Your task to perform on an android device: turn pop-ups on in chrome Image 0: 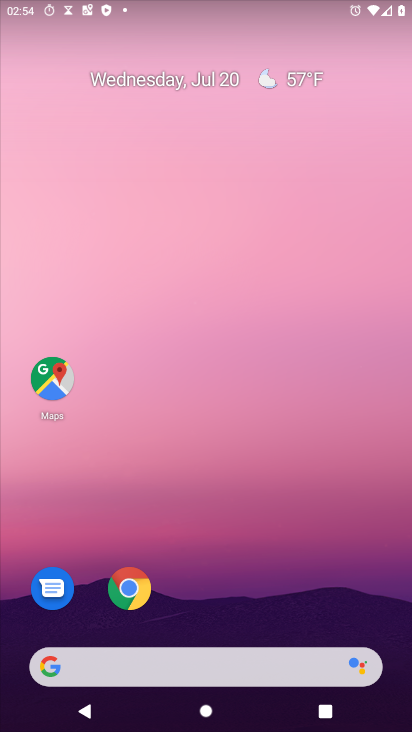
Step 0: drag from (349, 666) to (363, 1)
Your task to perform on an android device: turn pop-ups on in chrome Image 1: 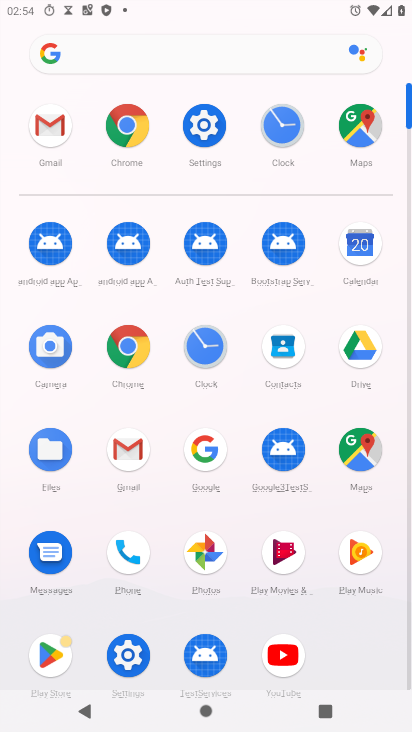
Step 1: click (147, 354)
Your task to perform on an android device: turn pop-ups on in chrome Image 2: 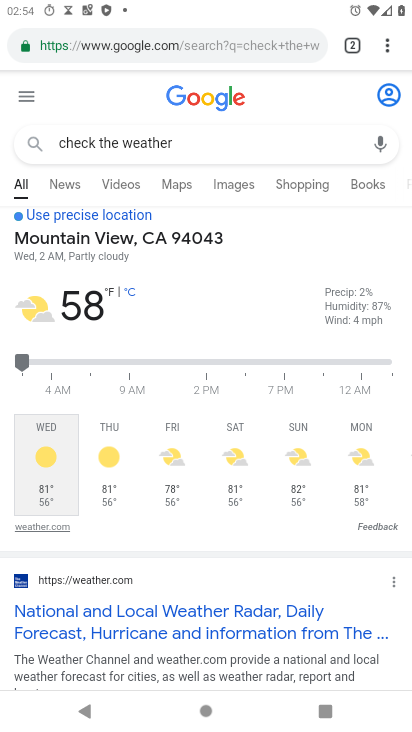
Step 2: click (390, 40)
Your task to perform on an android device: turn pop-ups on in chrome Image 3: 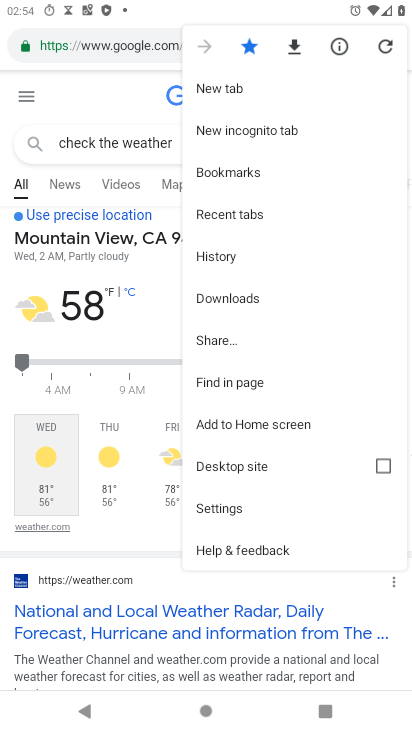
Step 3: click (241, 511)
Your task to perform on an android device: turn pop-ups on in chrome Image 4: 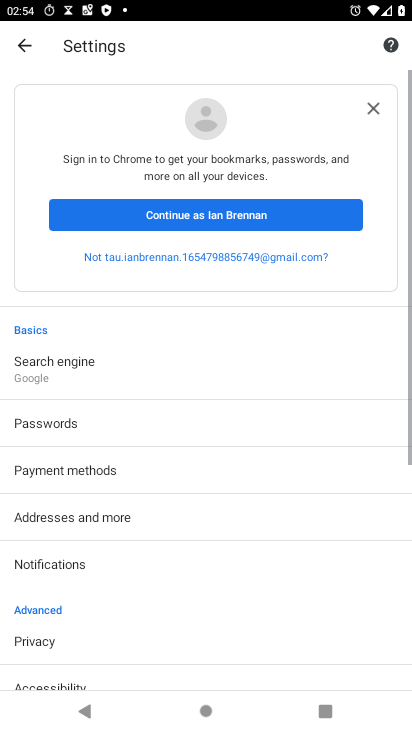
Step 4: drag from (161, 641) to (182, 149)
Your task to perform on an android device: turn pop-ups on in chrome Image 5: 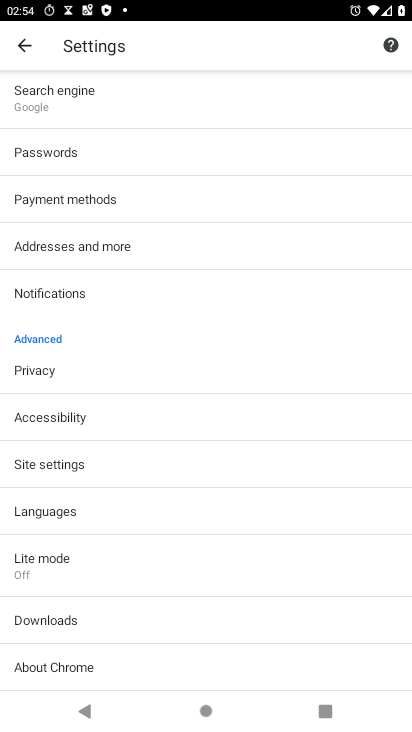
Step 5: click (86, 471)
Your task to perform on an android device: turn pop-ups on in chrome Image 6: 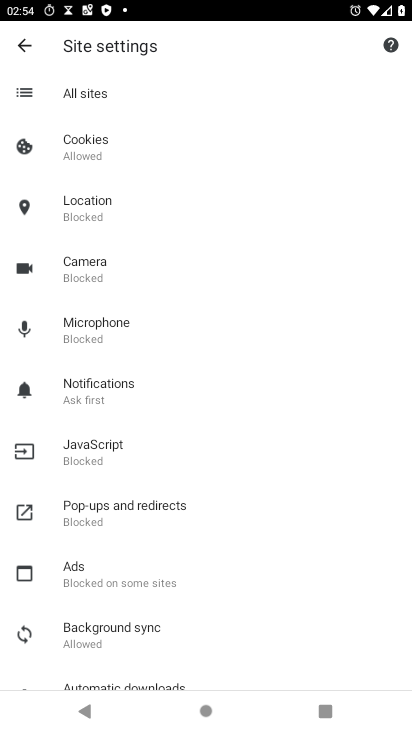
Step 6: click (140, 501)
Your task to perform on an android device: turn pop-ups on in chrome Image 7: 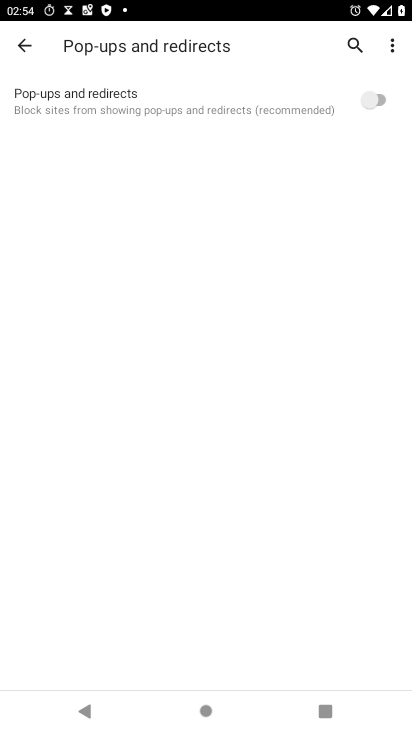
Step 7: click (373, 99)
Your task to perform on an android device: turn pop-ups on in chrome Image 8: 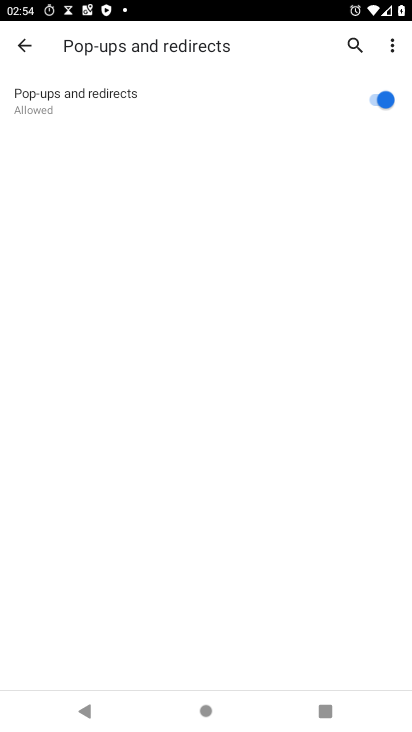
Step 8: task complete